Your task to perform on an android device: turn off picture-in-picture Image 0: 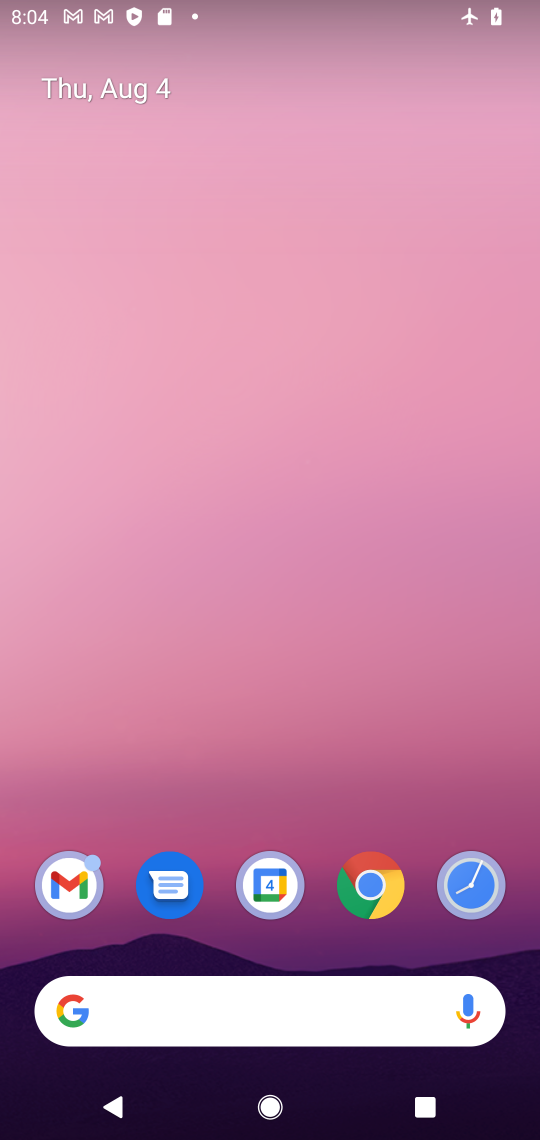
Step 0: press home button
Your task to perform on an android device: turn off picture-in-picture Image 1: 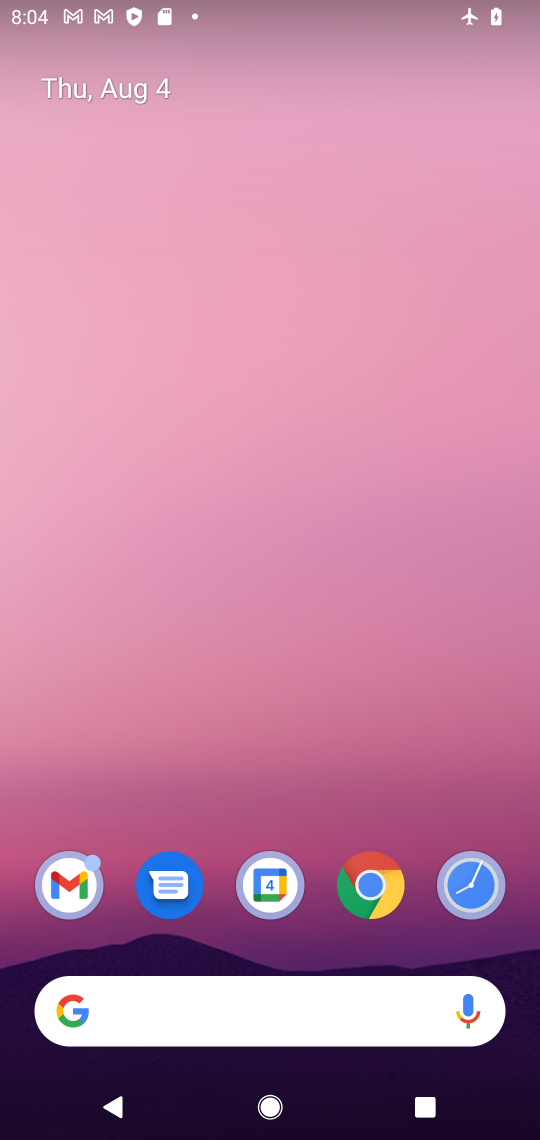
Step 1: click (379, 899)
Your task to perform on an android device: turn off picture-in-picture Image 2: 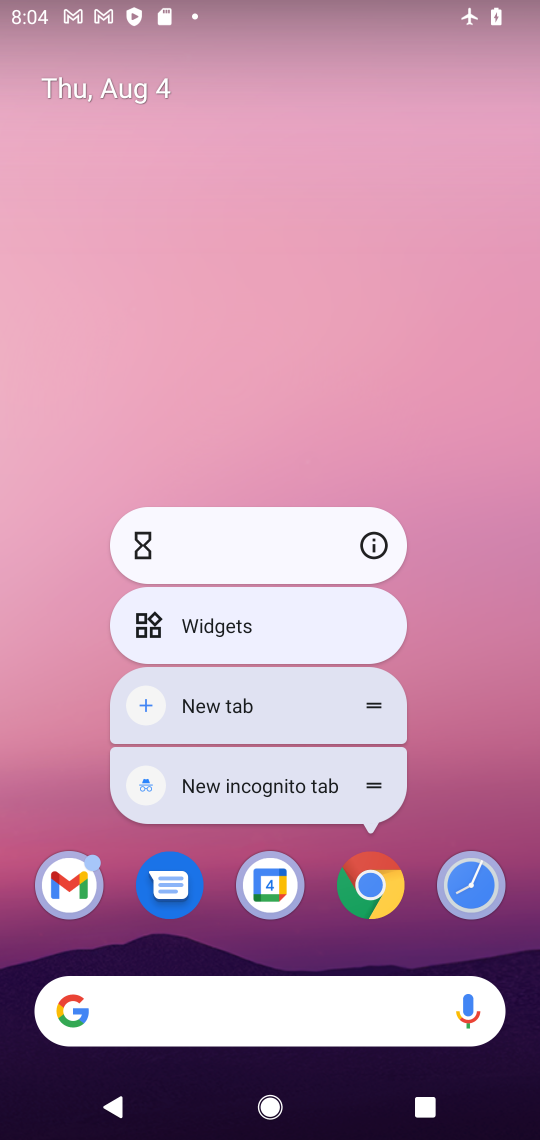
Step 2: click (365, 551)
Your task to perform on an android device: turn off picture-in-picture Image 3: 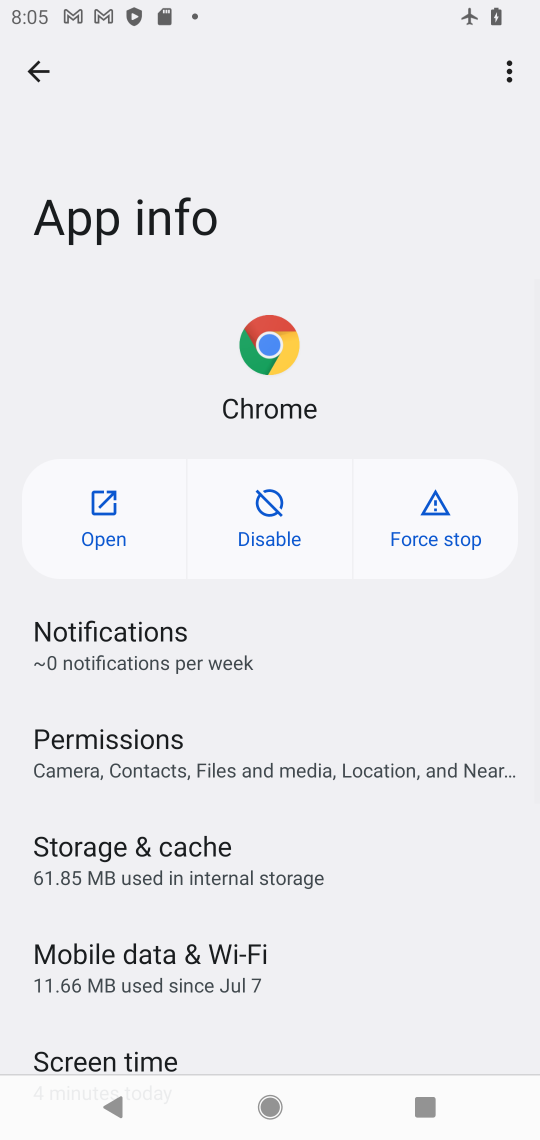
Step 3: drag from (231, 959) to (206, 89)
Your task to perform on an android device: turn off picture-in-picture Image 4: 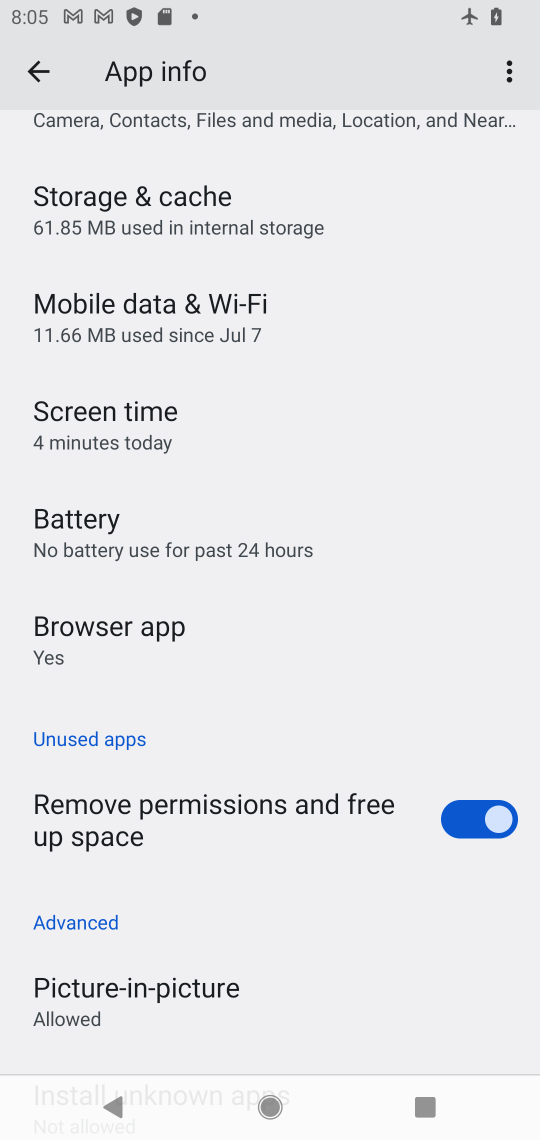
Step 4: click (146, 1012)
Your task to perform on an android device: turn off picture-in-picture Image 5: 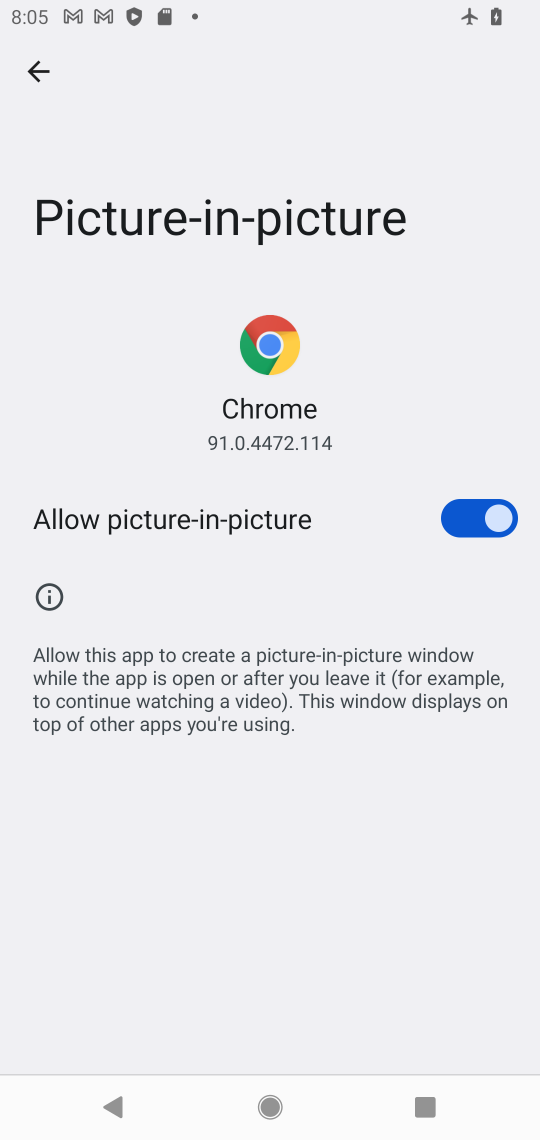
Step 5: click (230, 515)
Your task to perform on an android device: turn off picture-in-picture Image 6: 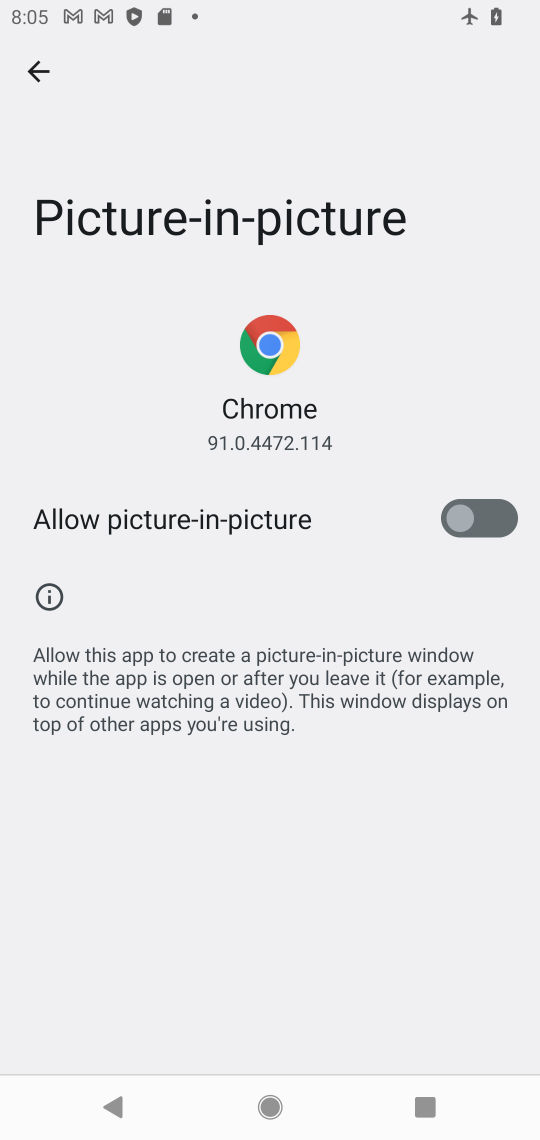
Step 6: task complete